Your task to perform on an android device: When is my next appointment? Image 0: 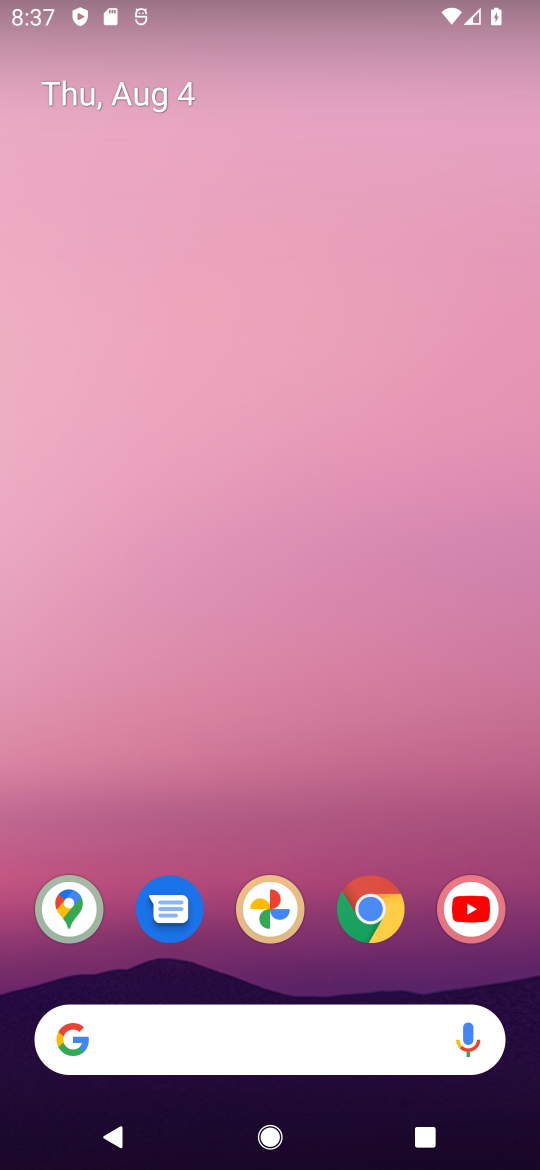
Step 0: press home button
Your task to perform on an android device: When is my next appointment? Image 1: 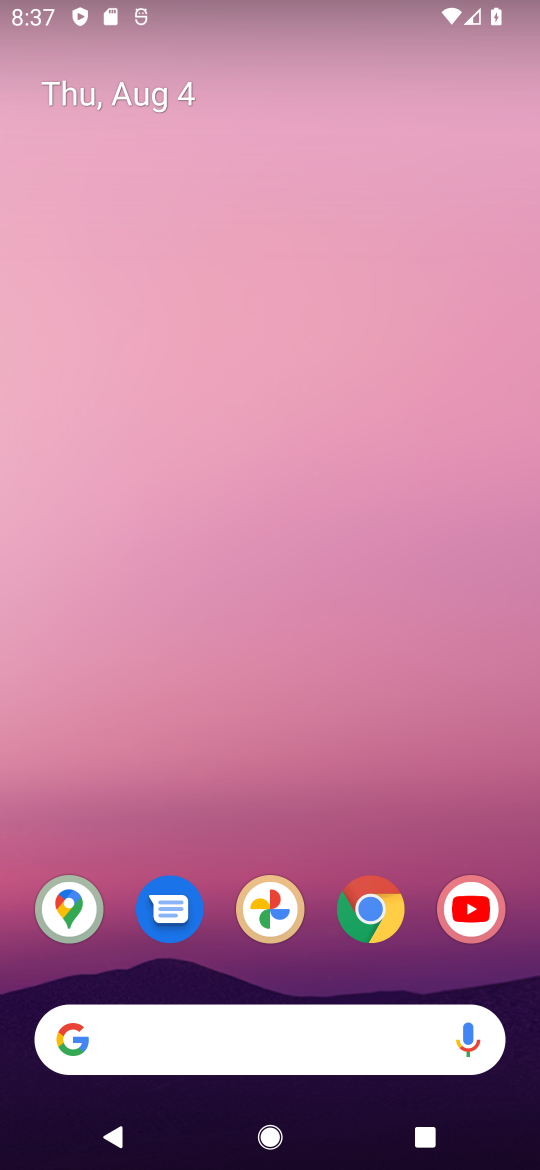
Step 1: drag from (318, 852) to (320, 179)
Your task to perform on an android device: When is my next appointment? Image 2: 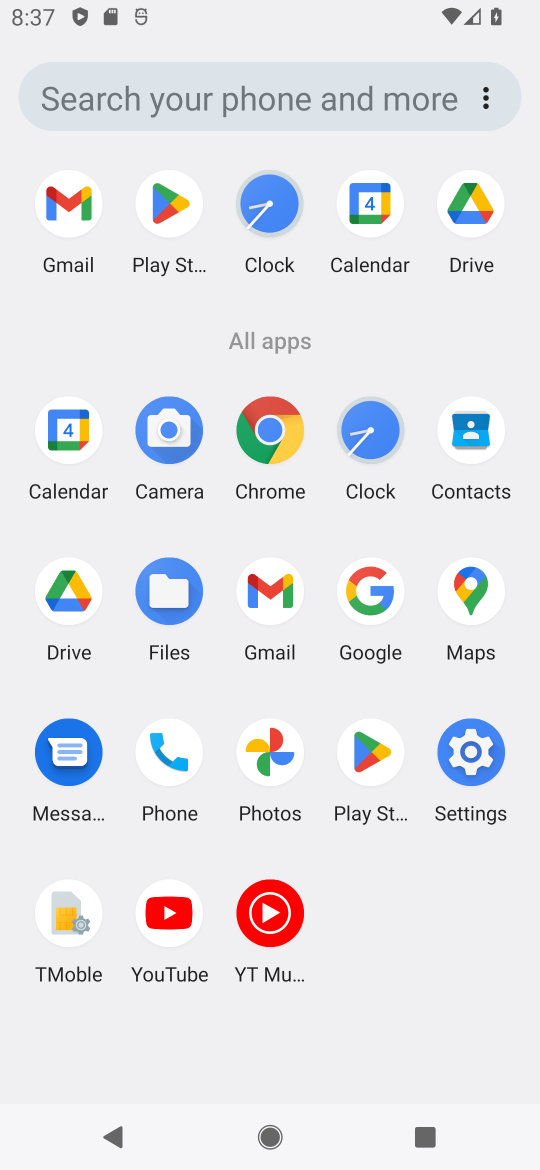
Step 2: click (81, 444)
Your task to perform on an android device: When is my next appointment? Image 3: 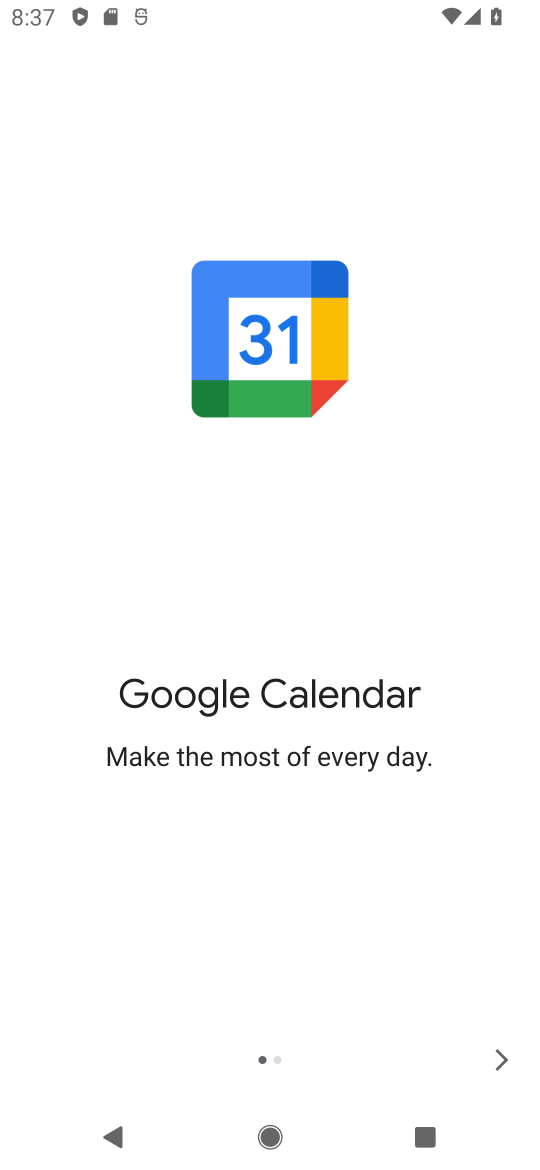
Step 3: click (505, 1060)
Your task to perform on an android device: When is my next appointment? Image 4: 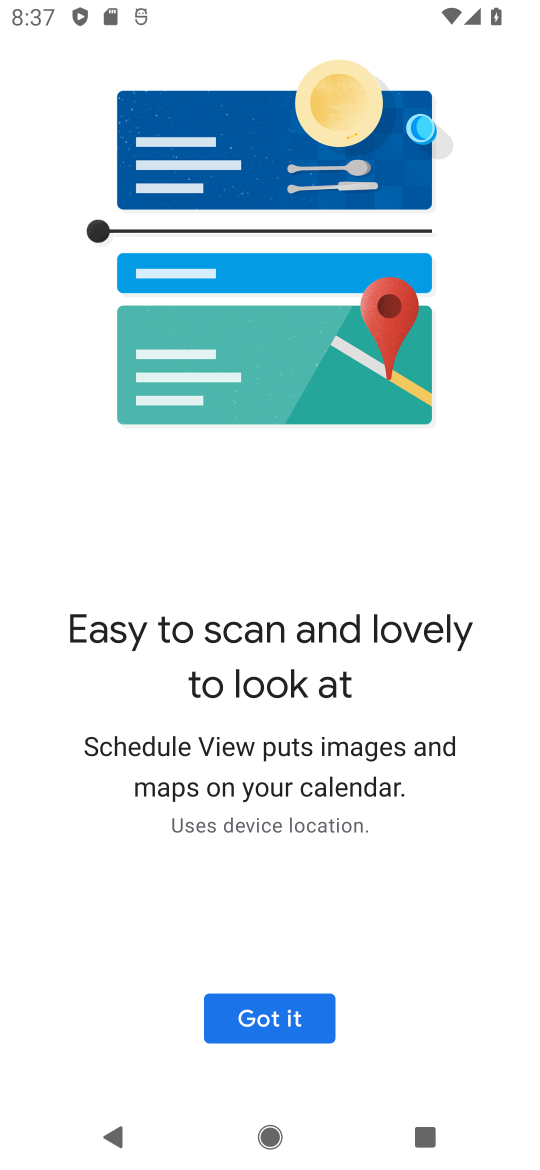
Step 4: click (304, 1018)
Your task to perform on an android device: When is my next appointment? Image 5: 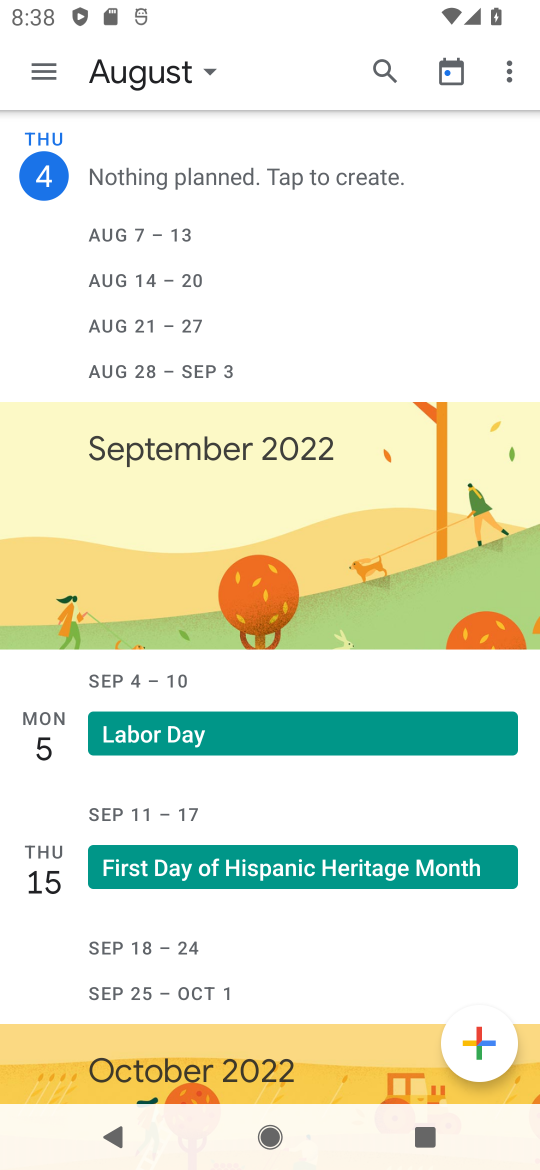
Step 5: task complete